Your task to perform on an android device: turn off smart reply in the gmail app Image 0: 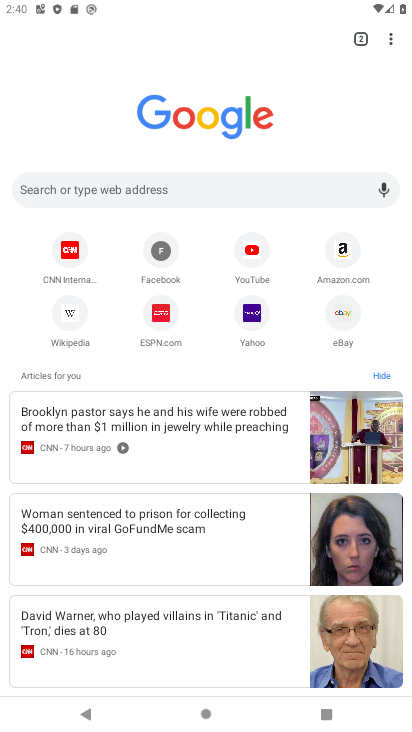
Step 0: press home button
Your task to perform on an android device: turn off smart reply in the gmail app Image 1: 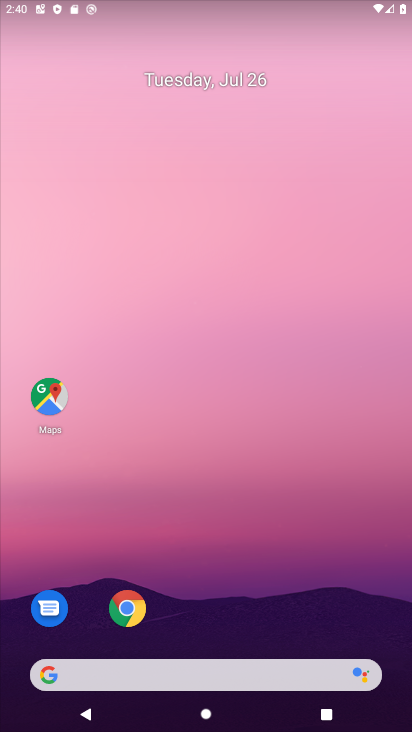
Step 1: drag from (257, 515) to (311, 150)
Your task to perform on an android device: turn off smart reply in the gmail app Image 2: 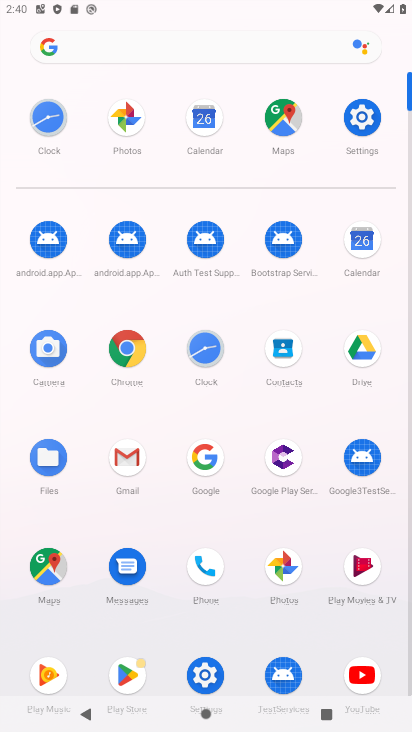
Step 2: click (118, 454)
Your task to perform on an android device: turn off smart reply in the gmail app Image 3: 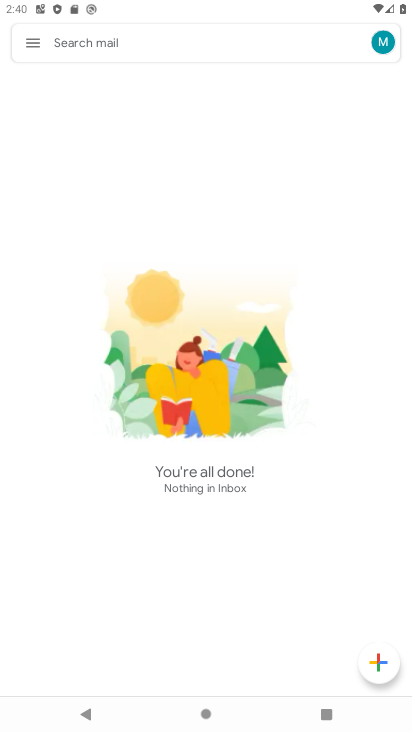
Step 3: click (30, 45)
Your task to perform on an android device: turn off smart reply in the gmail app Image 4: 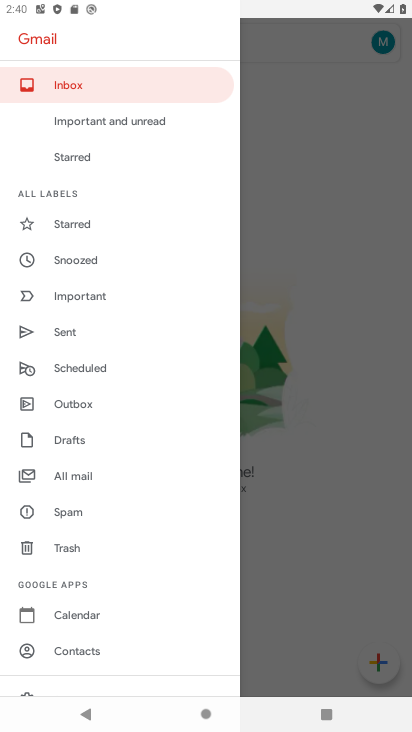
Step 4: drag from (156, 543) to (230, 123)
Your task to perform on an android device: turn off smart reply in the gmail app Image 5: 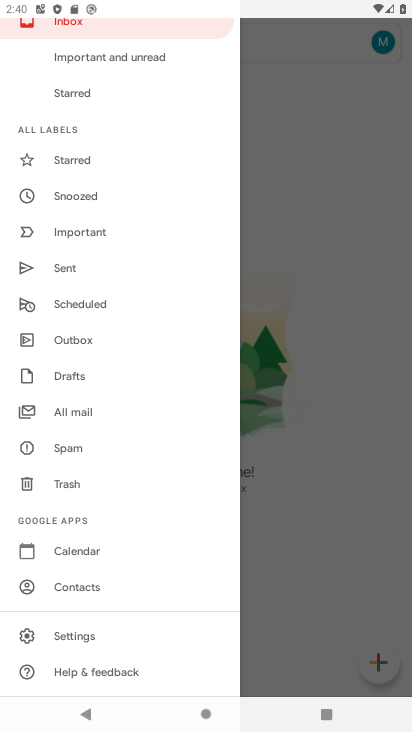
Step 5: click (78, 642)
Your task to perform on an android device: turn off smart reply in the gmail app Image 6: 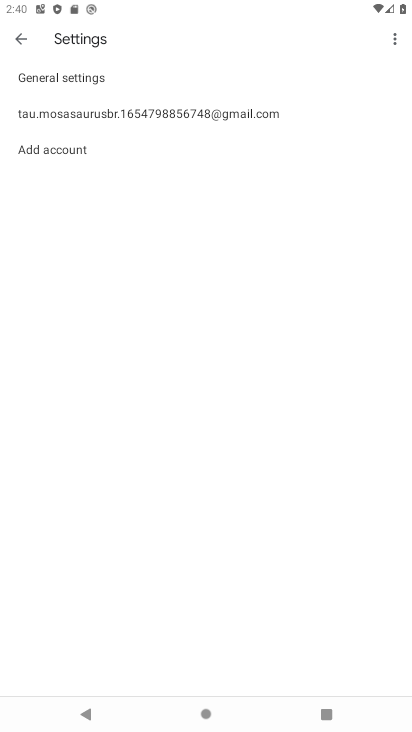
Step 6: task complete